Your task to perform on an android device: Is it going to rain tomorrow? Image 0: 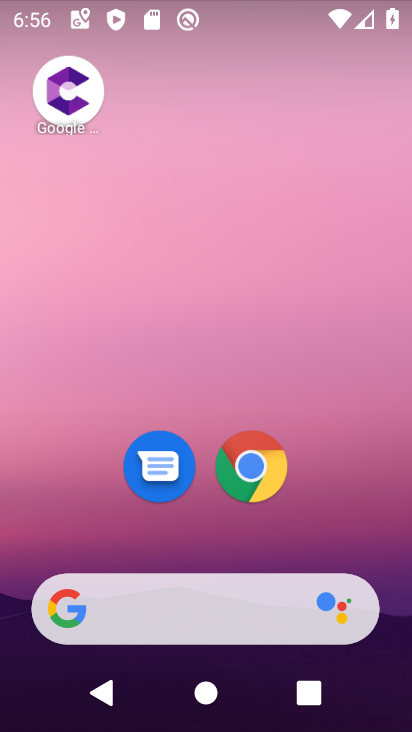
Step 0: drag from (347, 526) to (340, 490)
Your task to perform on an android device: Is it going to rain tomorrow? Image 1: 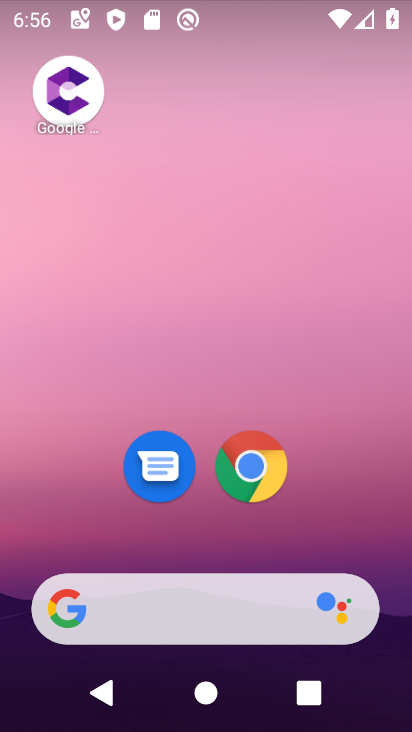
Step 1: drag from (13, 275) to (411, 367)
Your task to perform on an android device: Is it going to rain tomorrow? Image 2: 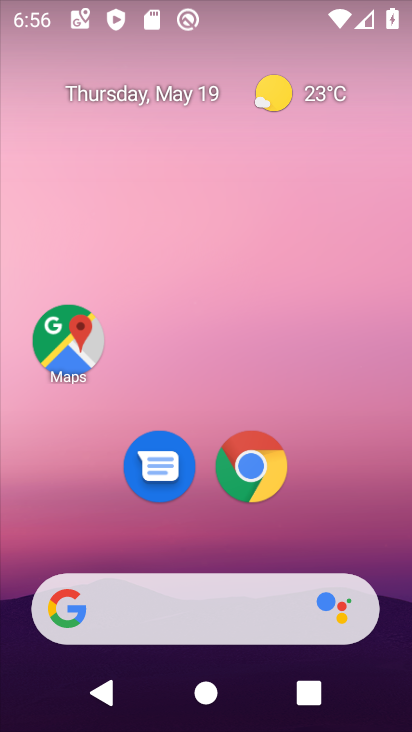
Step 2: click (314, 93)
Your task to perform on an android device: Is it going to rain tomorrow? Image 3: 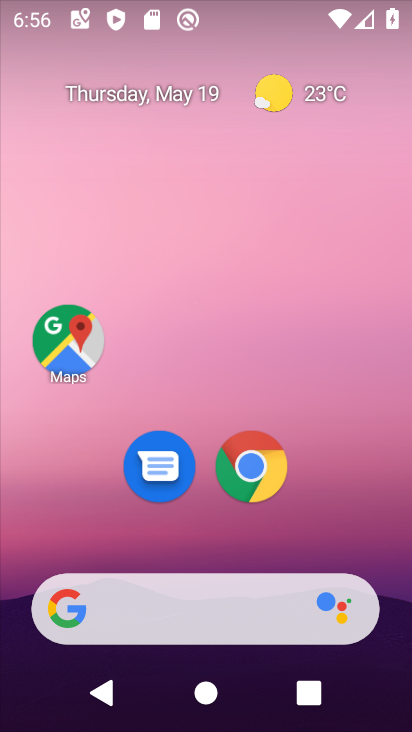
Step 3: click (312, 94)
Your task to perform on an android device: Is it going to rain tomorrow? Image 4: 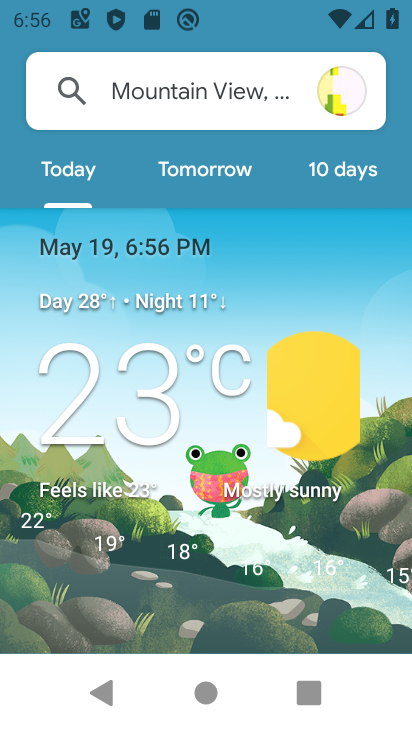
Step 4: click (185, 183)
Your task to perform on an android device: Is it going to rain tomorrow? Image 5: 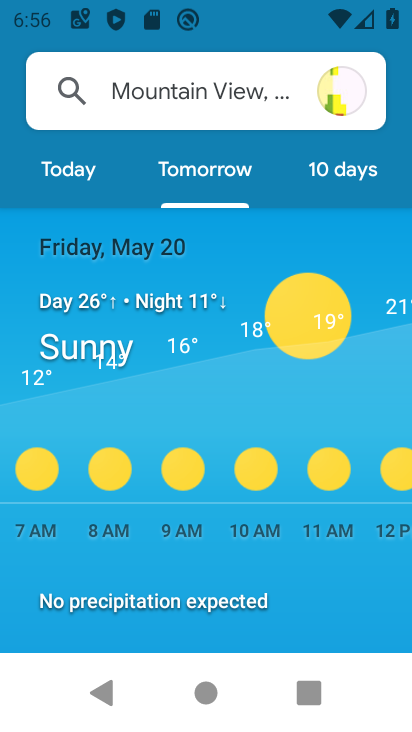
Step 5: task complete